Your task to perform on an android device: Find coffee shops on Maps Image 0: 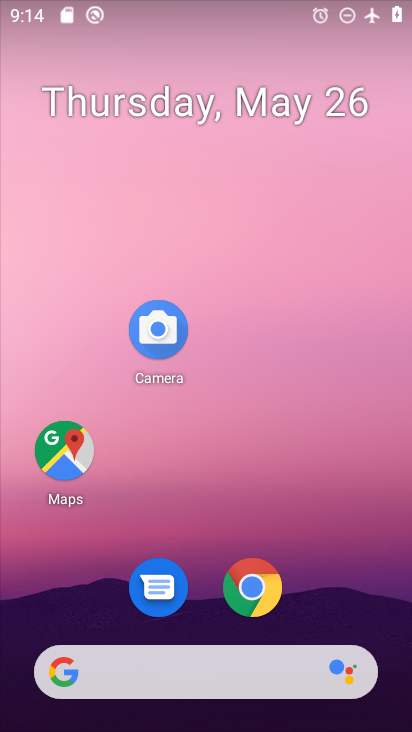
Step 0: click (89, 470)
Your task to perform on an android device: Find coffee shops on Maps Image 1: 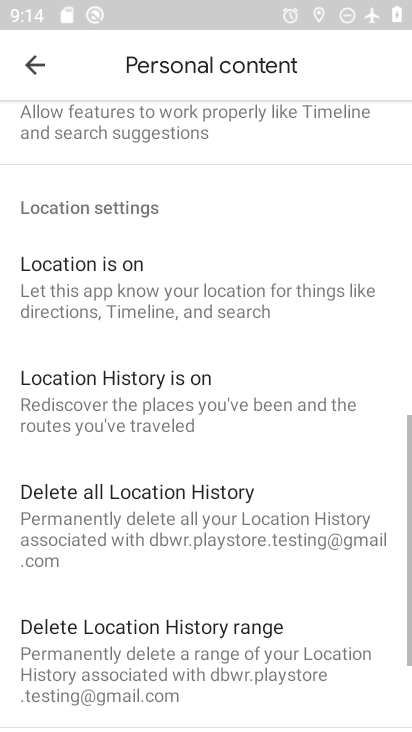
Step 1: click (44, 63)
Your task to perform on an android device: Find coffee shops on Maps Image 2: 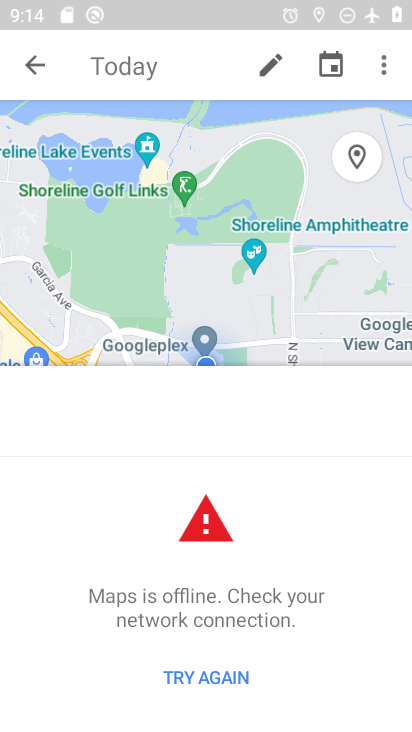
Step 2: click (38, 66)
Your task to perform on an android device: Find coffee shops on Maps Image 3: 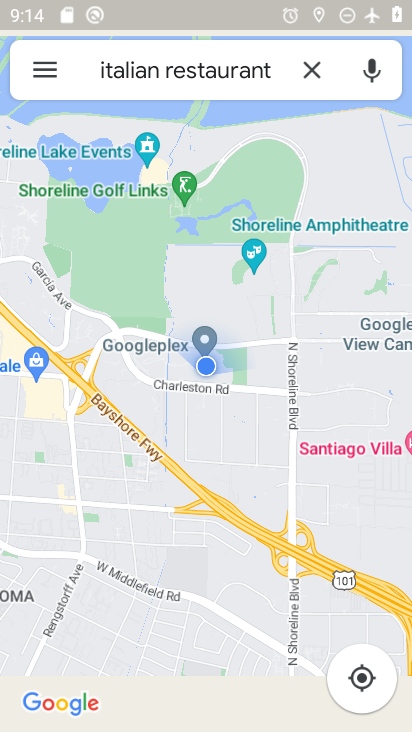
Step 3: click (145, 74)
Your task to perform on an android device: Find coffee shops on Maps Image 4: 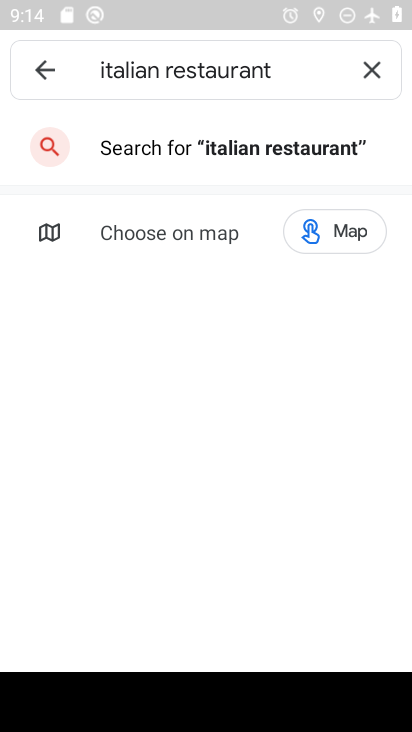
Step 4: click (364, 66)
Your task to perform on an android device: Find coffee shops on Maps Image 5: 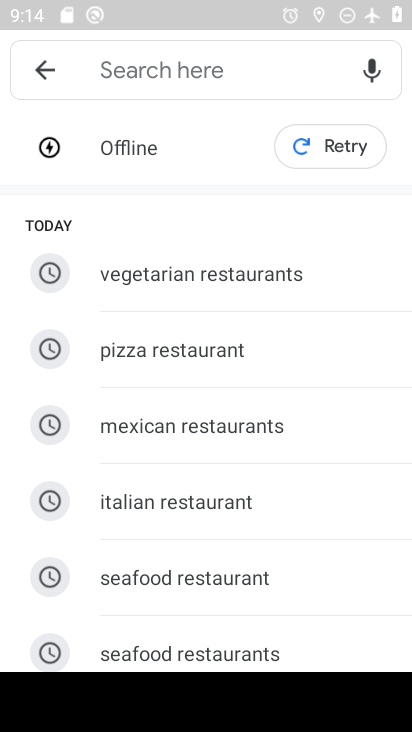
Step 5: type "coffee shops"
Your task to perform on an android device: Find coffee shops on Maps Image 6: 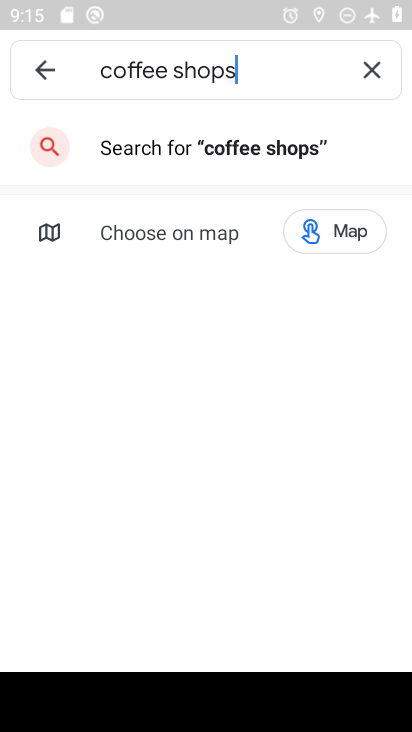
Step 6: task complete